Your task to perform on an android device: change the clock display to show seconds Image 0: 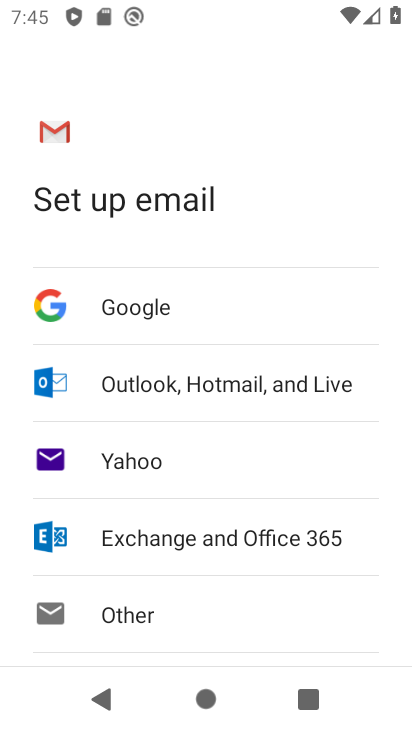
Step 0: press home button
Your task to perform on an android device: change the clock display to show seconds Image 1: 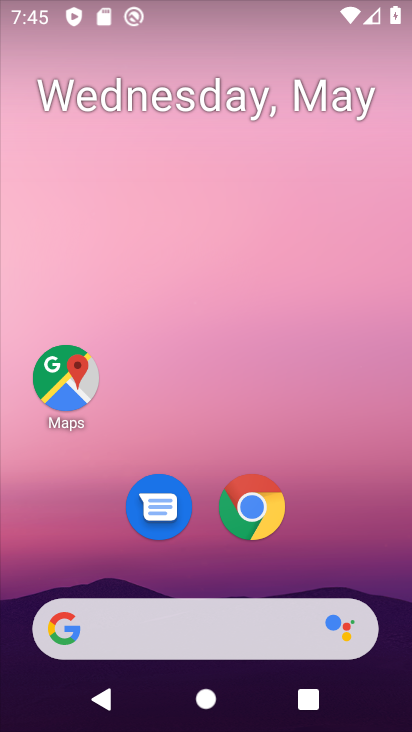
Step 1: drag from (254, 551) to (282, 163)
Your task to perform on an android device: change the clock display to show seconds Image 2: 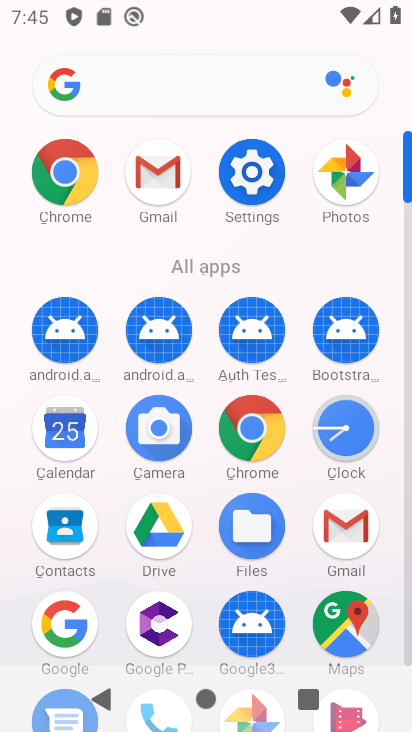
Step 2: click (331, 424)
Your task to perform on an android device: change the clock display to show seconds Image 3: 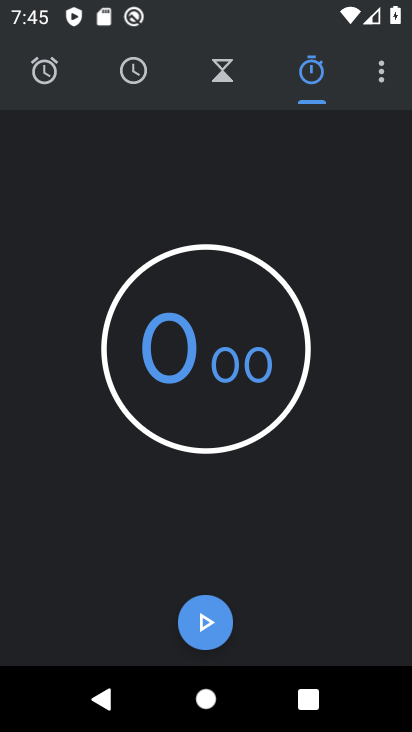
Step 3: click (382, 81)
Your task to perform on an android device: change the clock display to show seconds Image 4: 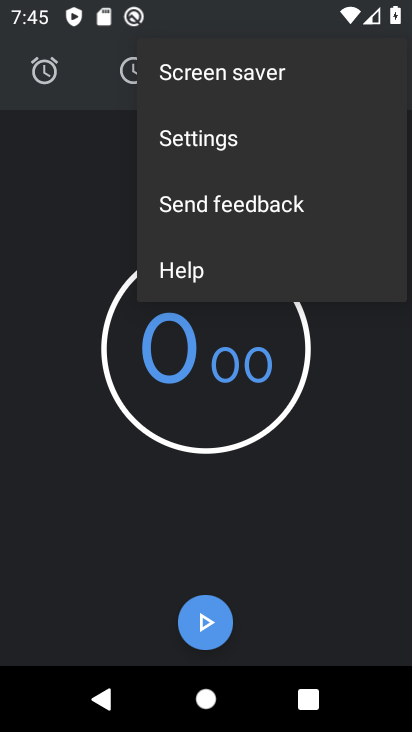
Step 4: click (243, 137)
Your task to perform on an android device: change the clock display to show seconds Image 5: 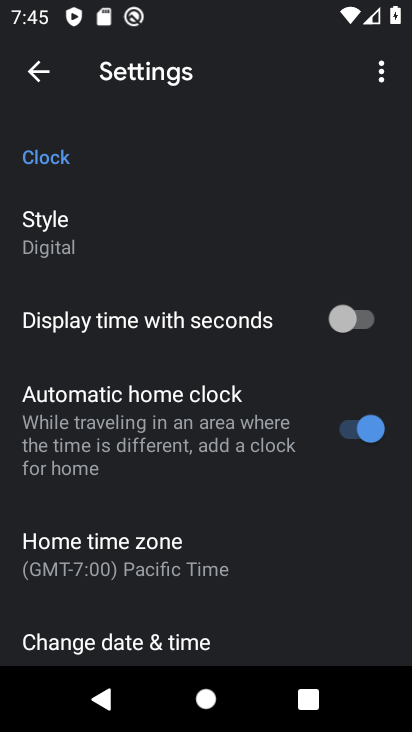
Step 5: click (350, 321)
Your task to perform on an android device: change the clock display to show seconds Image 6: 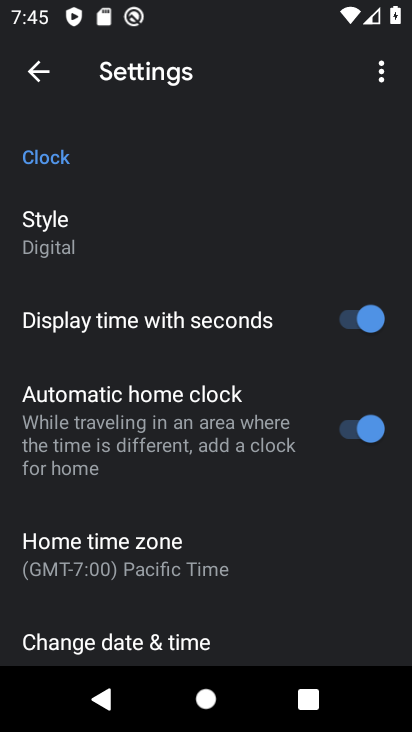
Step 6: task complete